Your task to perform on an android device: Go to Maps Image 0: 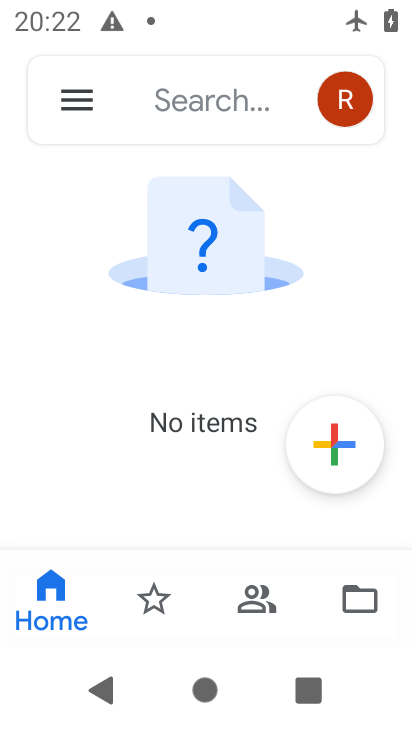
Step 0: press home button
Your task to perform on an android device: Go to Maps Image 1: 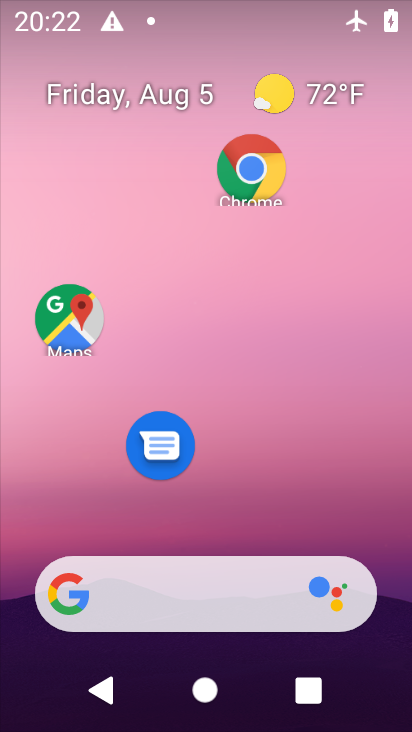
Step 1: click (66, 326)
Your task to perform on an android device: Go to Maps Image 2: 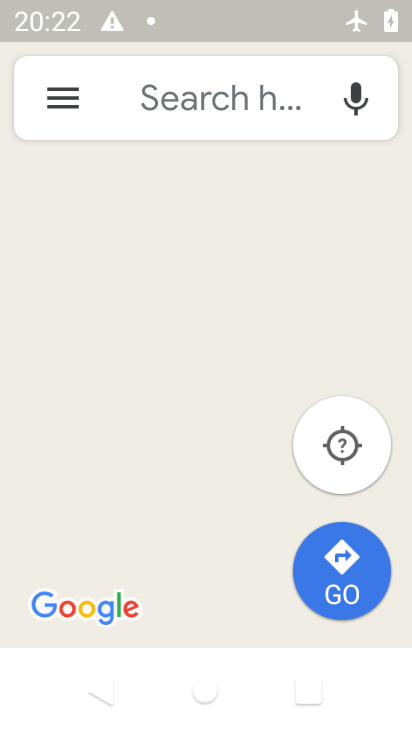
Step 2: task complete